Your task to perform on an android device: see creations saved in the google photos Image 0: 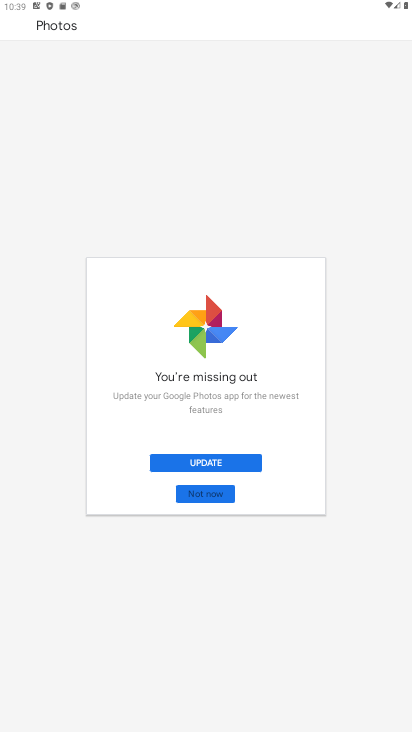
Step 0: click (213, 455)
Your task to perform on an android device: see creations saved in the google photos Image 1: 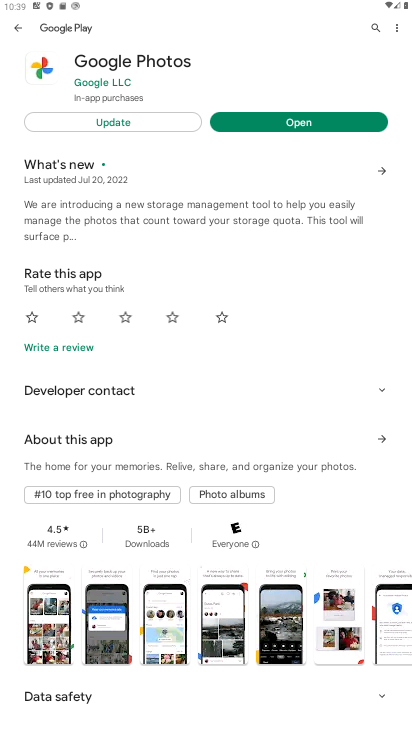
Step 1: click (119, 118)
Your task to perform on an android device: see creations saved in the google photos Image 2: 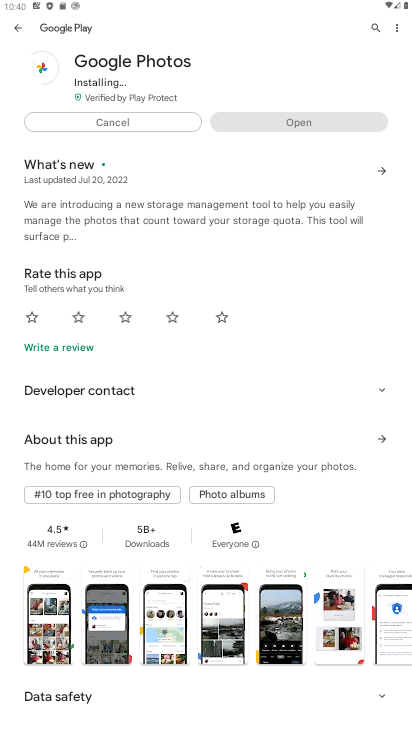
Step 2: click (119, 118)
Your task to perform on an android device: see creations saved in the google photos Image 3: 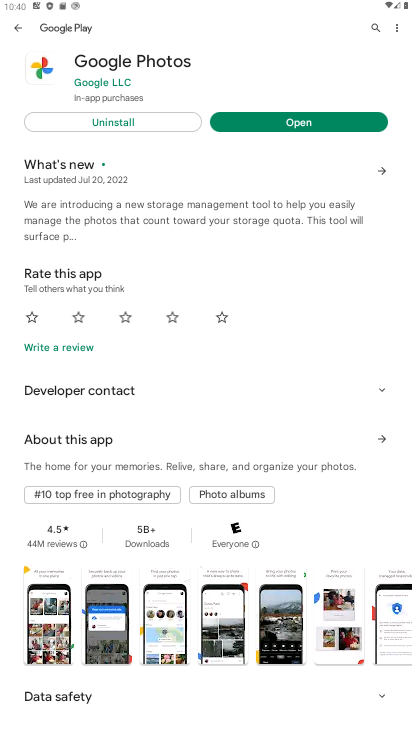
Step 3: click (306, 121)
Your task to perform on an android device: see creations saved in the google photos Image 4: 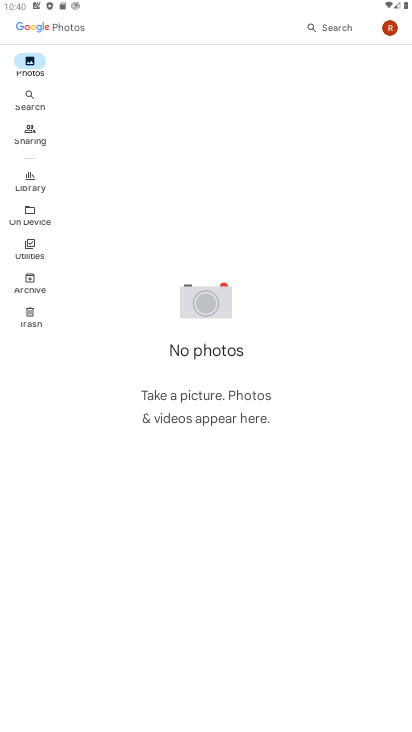
Step 4: click (302, 31)
Your task to perform on an android device: see creations saved in the google photos Image 5: 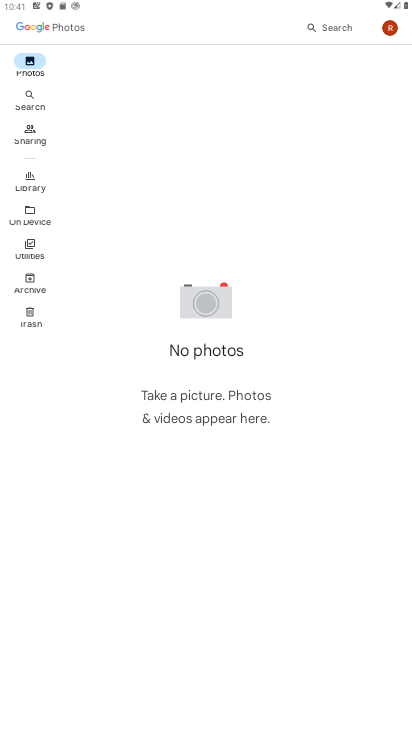
Step 5: click (315, 22)
Your task to perform on an android device: see creations saved in the google photos Image 6: 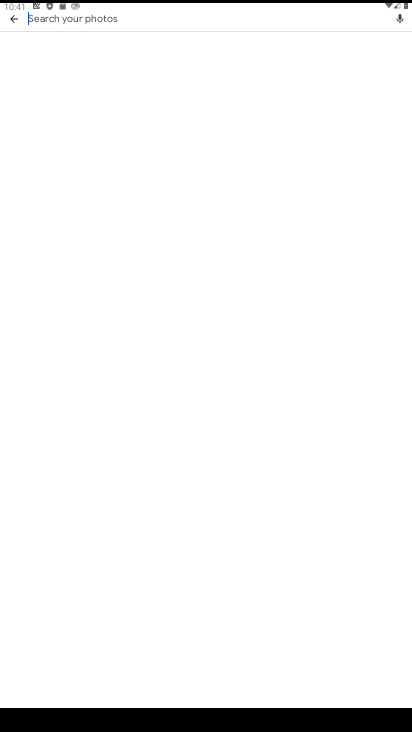
Step 6: click (6, 20)
Your task to perform on an android device: see creations saved in the google photos Image 7: 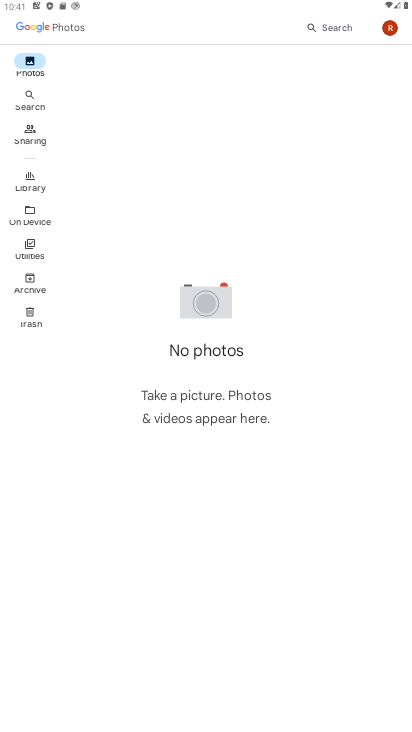
Step 7: click (30, 174)
Your task to perform on an android device: see creations saved in the google photos Image 8: 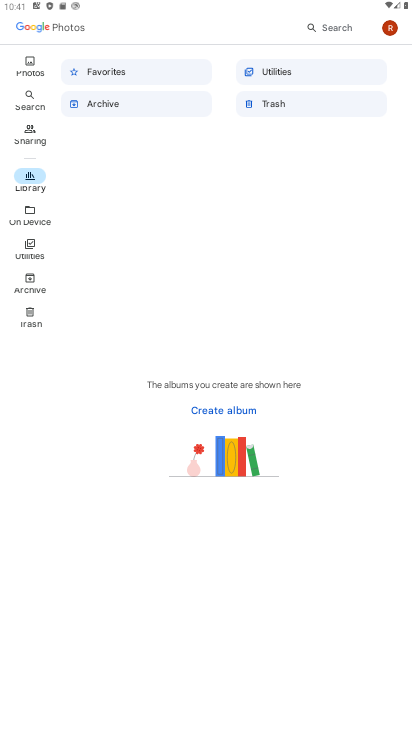
Step 8: click (28, 126)
Your task to perform on an android device: see creations saved in the google photos Image 9: 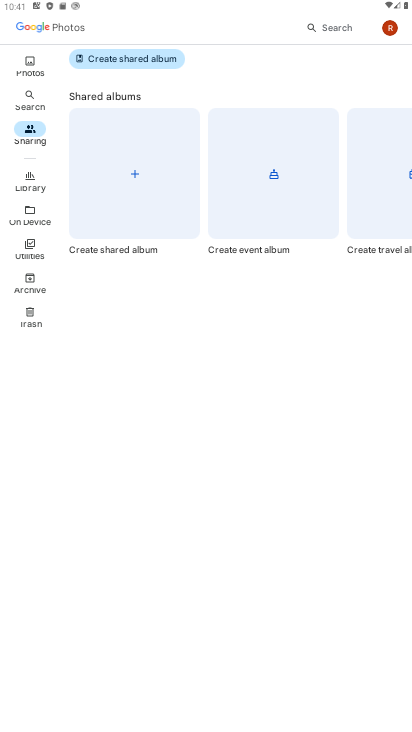
Step 9: click (30, 95)
Your task to perform on an android device: see creations saved in the google photos Image 10: 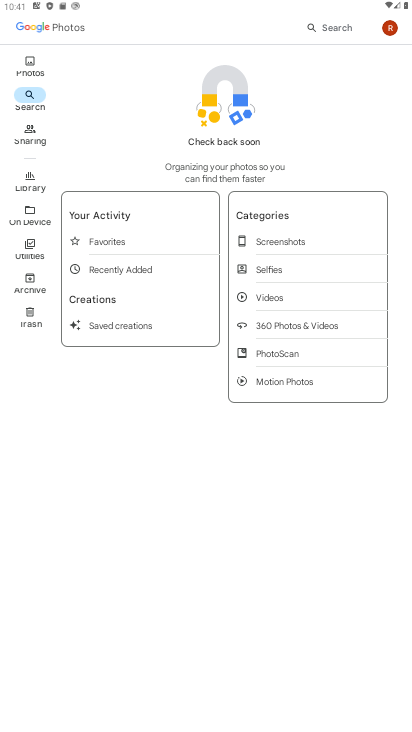
Step 10: click (134, 324)
Your task to perform on an android device: see creations saved in the google photos Image 11: 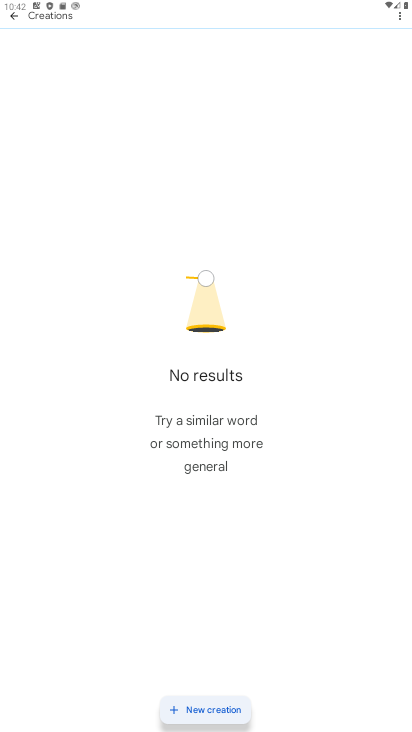
Step 11: task complete